Your task to perform on an android device: turn off data saver in the chrome app Image 0: 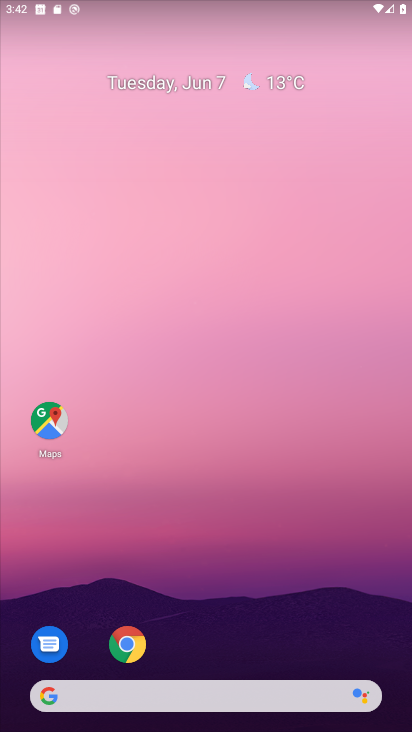
Step 0: drag from (315, 636) to (347, 164)
Your task to perform on an android device: turn off data saver in the chrome app Image 1: 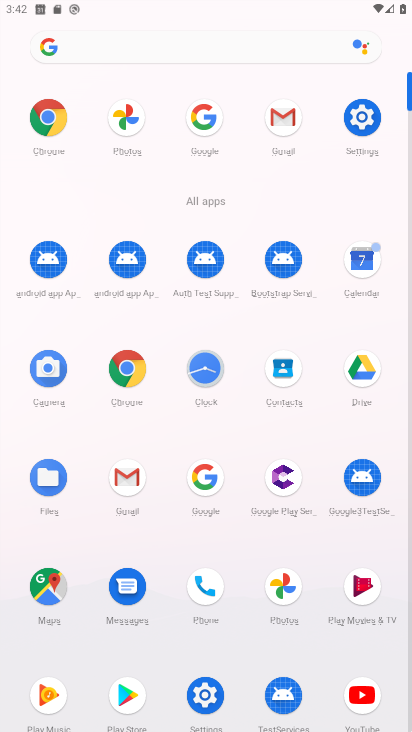
Step 1: click (145, 376)
Your task to perform on an android device: turn off data saver in the chrome app Image 2: 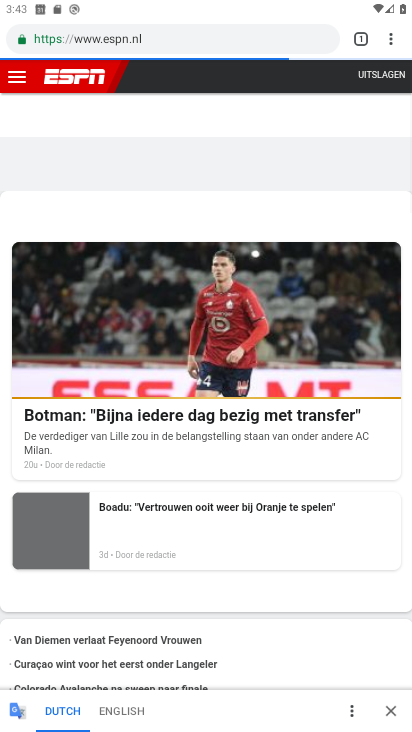
Step 2: click (389, 47)
Your task to perform on an android device: turn off data saver in the chrome app Image 3: 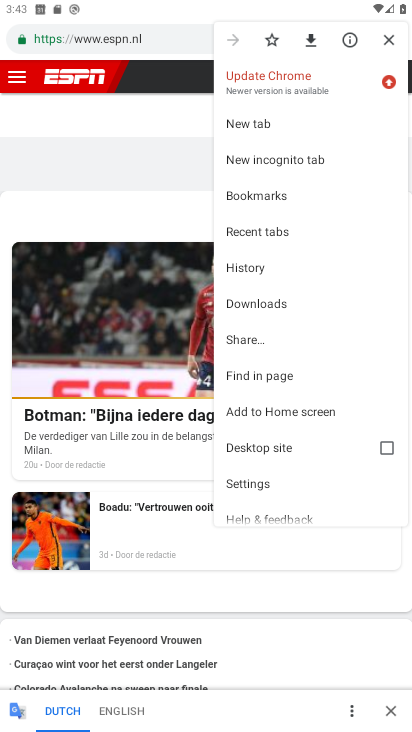
Step 3: click (275, 490)
Your task to perform on an android device: turn off data saver in the chrome app Image 4: 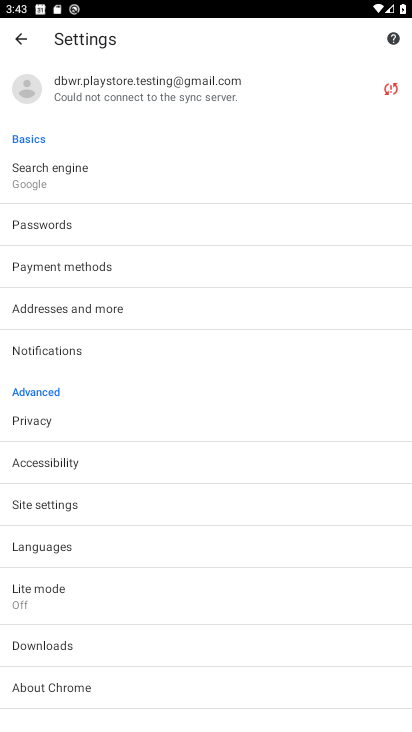
Step 4: drag from (275, 464) to (272, 352)
Your task to perform on an android device: turn off data saver in the chrome app Image 5: 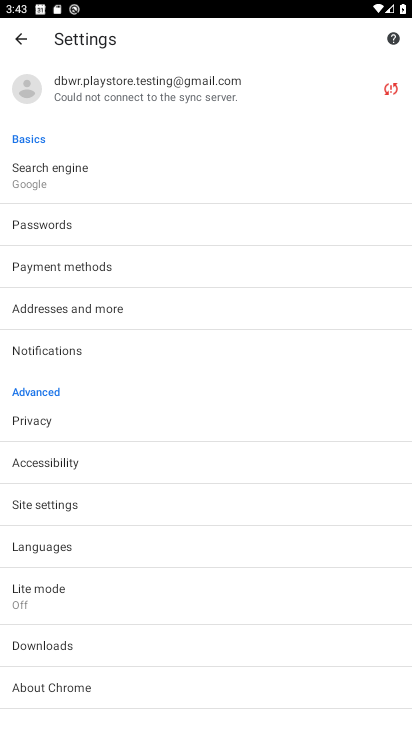
Step 5: click (206, 599)
Your task to perform on an android device: turn off data saver in the chrome app Image 6: 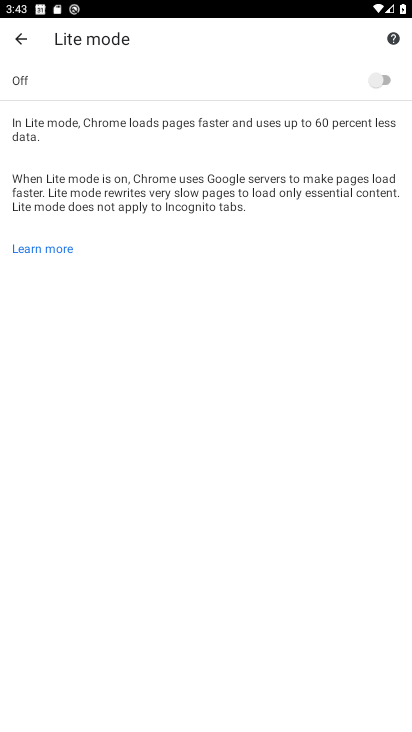
Step 6: task complete